Your task to perform on an android device: What's the news this week? Image 0: 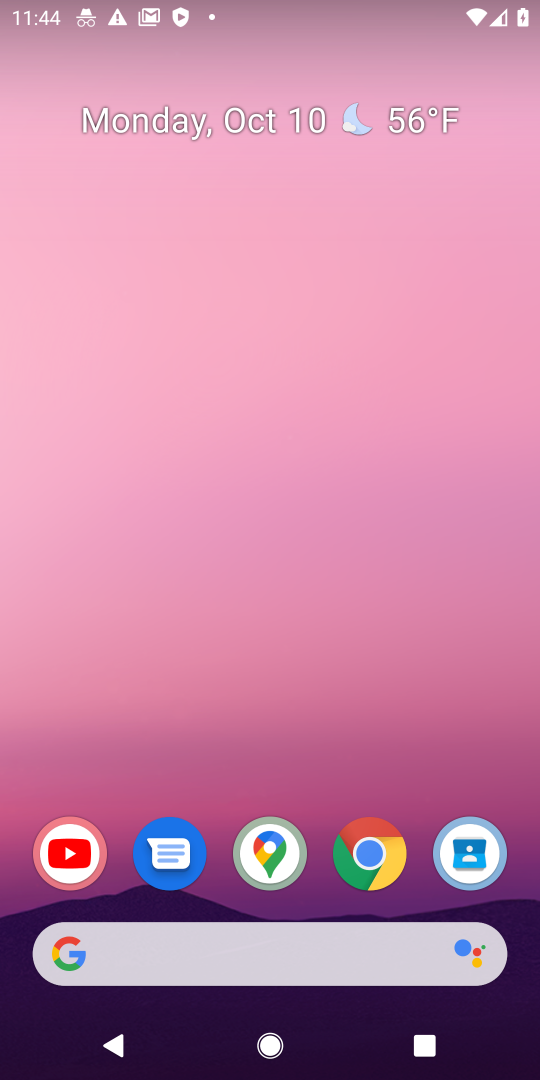
Step 0: press home button
Your task to perform on an android device: What's the news this week? Image 1: 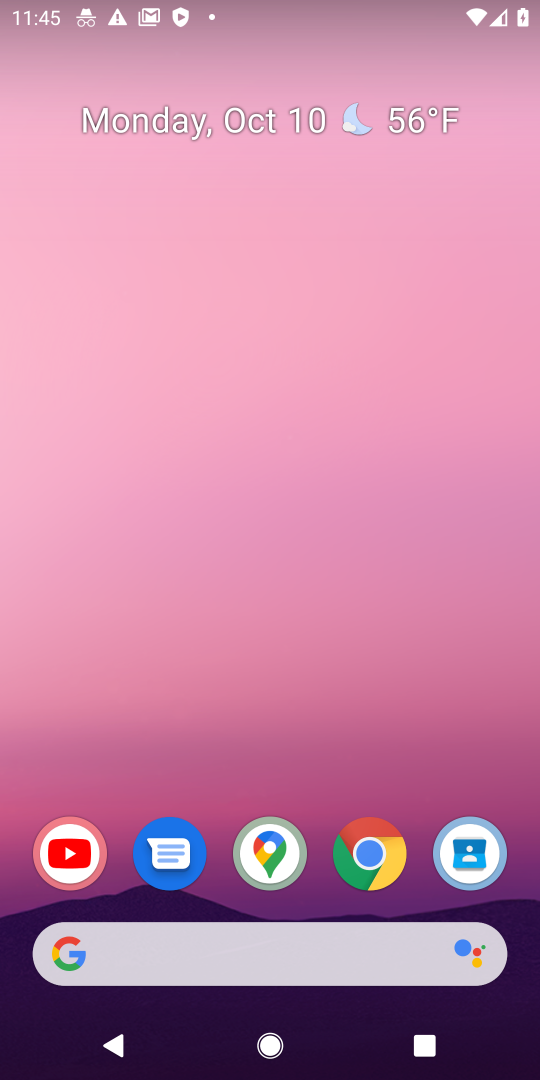
Step 1: click (242, 960)
Your task to perform on an android device: What's the news this week? Image 2: 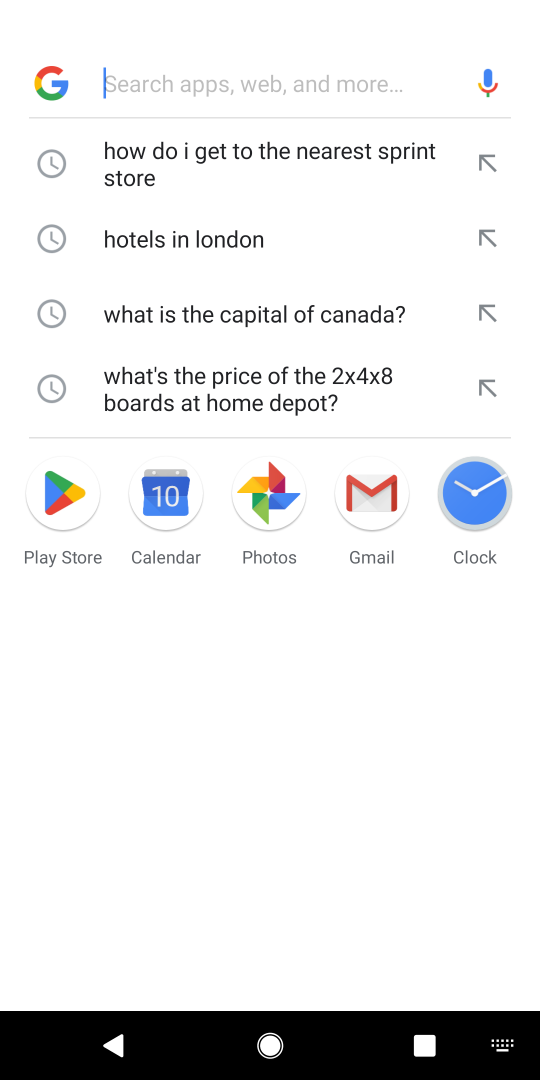
Step 2: type "What's the news this week?"
Your task to perform on an android device: What's the news this week? Image 3: 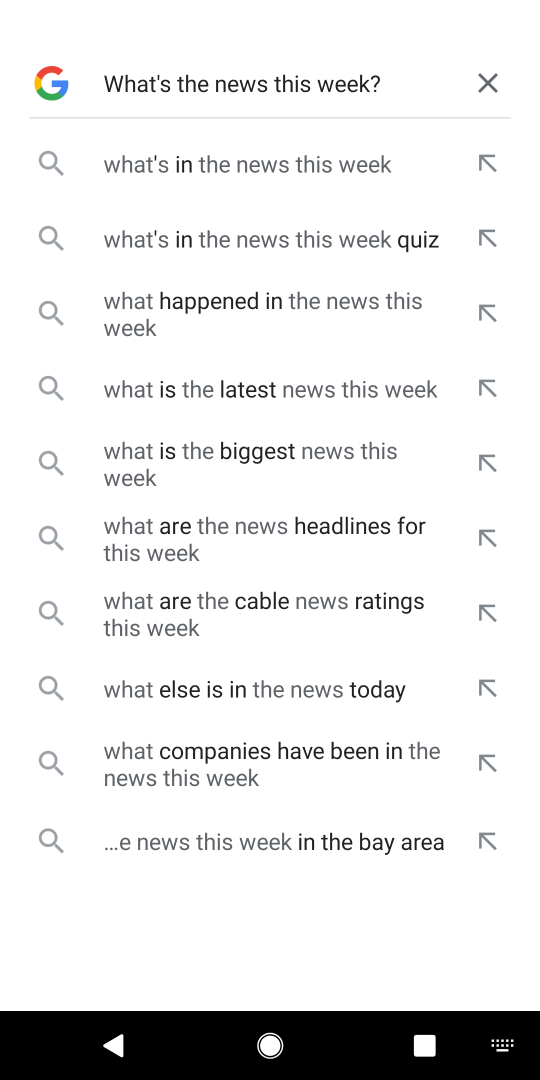
Step 3: press enter
Your task to perform on an android device: What's the news this week? Image 4: 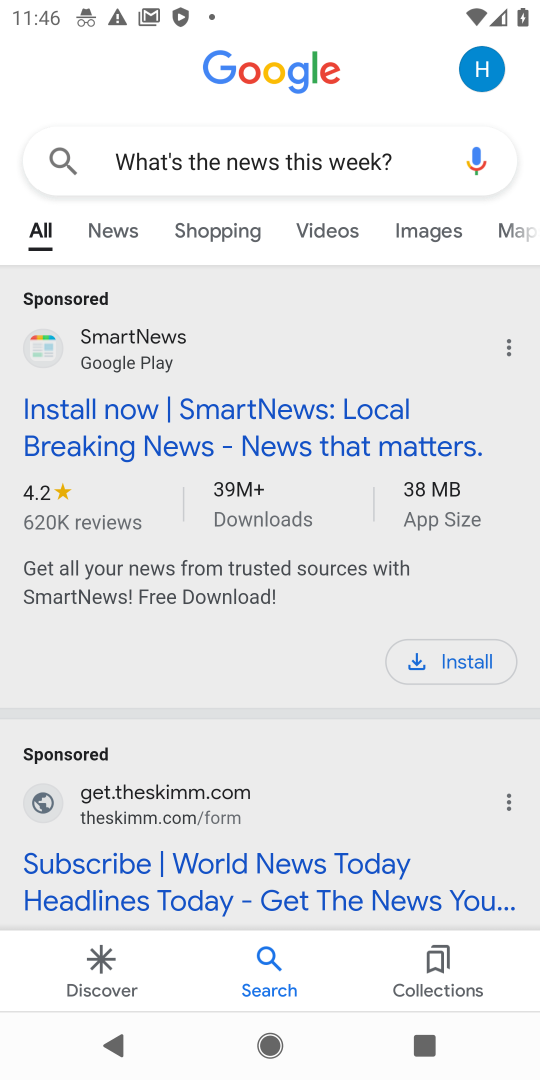
Step 4: drag from (325, 639) to (374, 318)
Your task to perform on an android device: What's the news this week? Image 5: 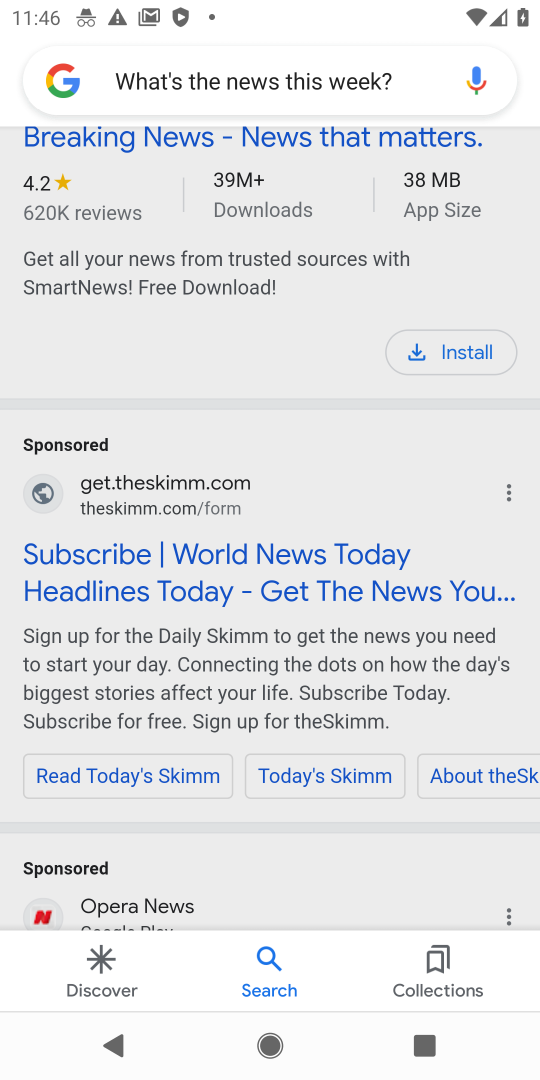
Step 5: drag from (310, 788) to (367, 264)
Your task to perform on an android device: What's the news this week? Image 6: 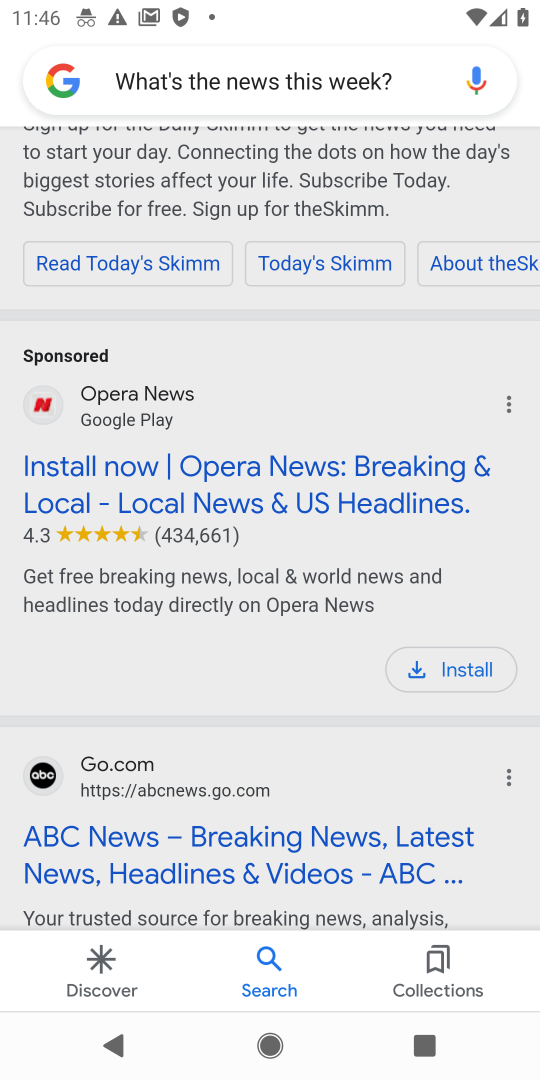
Step 6: click (268, 826)
Your task to perform on an android device: What's the news this week? Image 7: 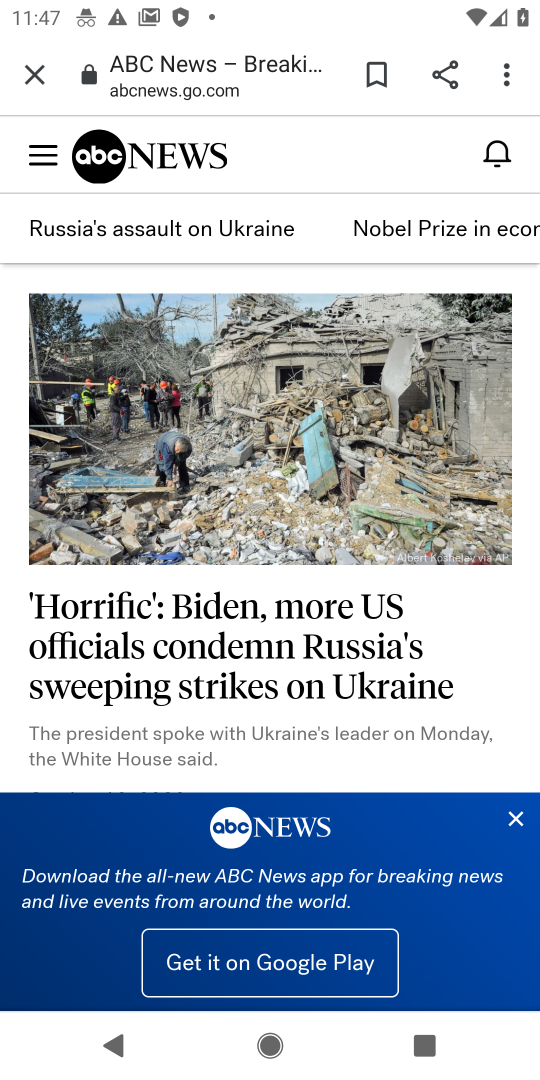
Step 7: task complete